Your task to perform on an android device: add a contact in the contacts app Image 0: 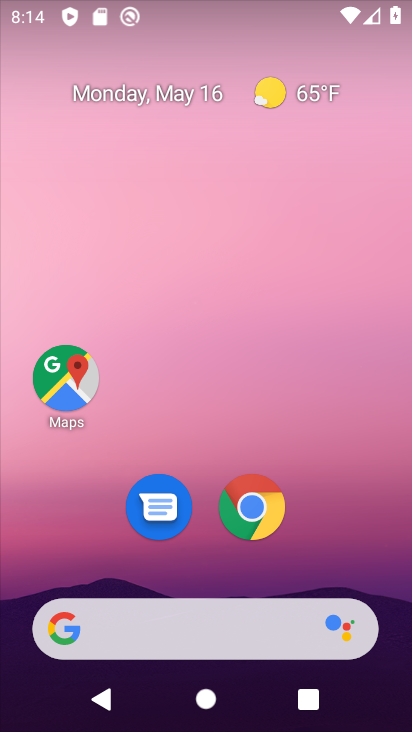
Step 0: drag from (198, 602) to (349, 123)
Your task to perform on an android device: add a contact in the contacts app Image 1: 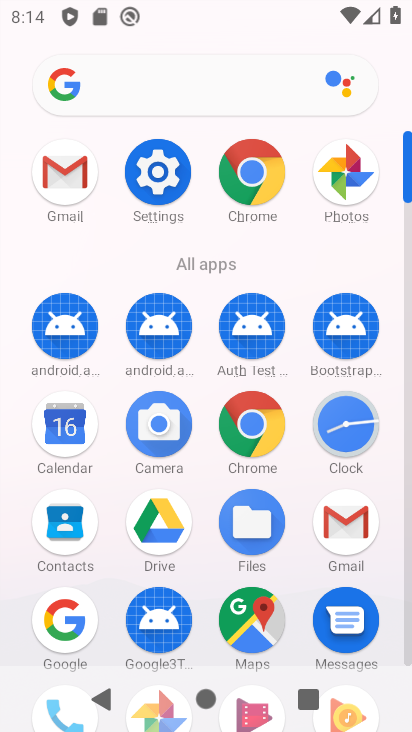
Step 1: drag from (106, 553) to (77, 113)
Your task to perform on an android device: add a contact in the contacts app Image 2: 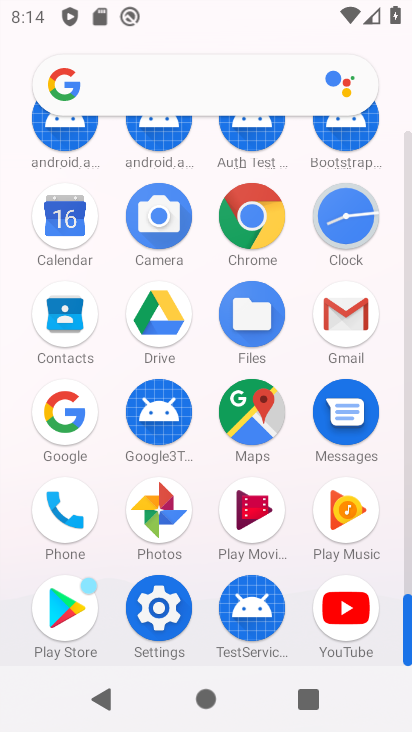
Step 2: click (62, 518)
Your task to perform on an android device: add a contact in the contacts app Image 3: 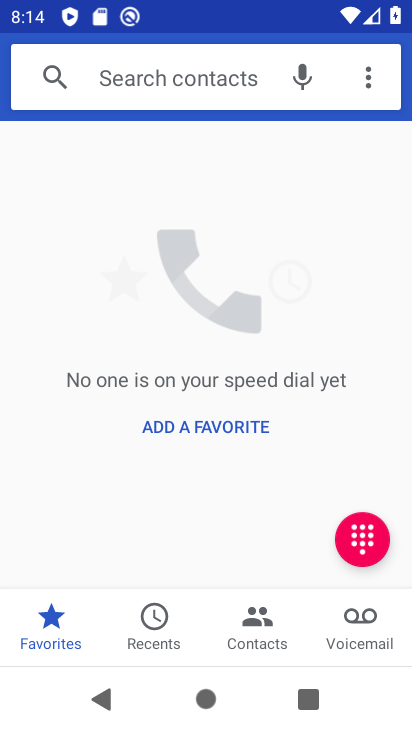
Step 3: click (228, 631)
Your task to perform on an android device: add a contact in the contacts app Image 4: 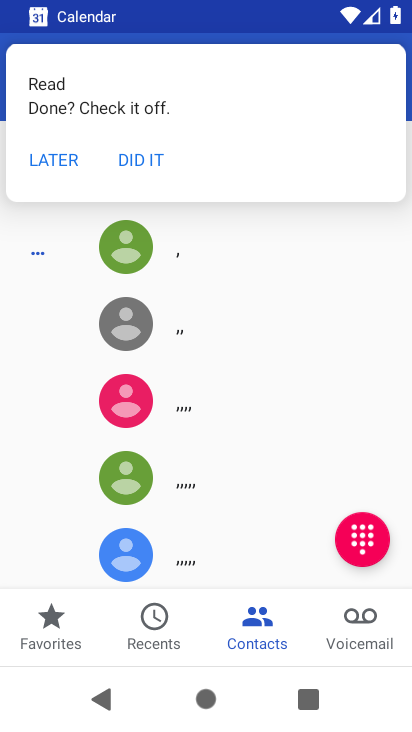
Step 4: click (138, 164)
Your task to perform on an android device: add a contact in the contacts app Image 5: 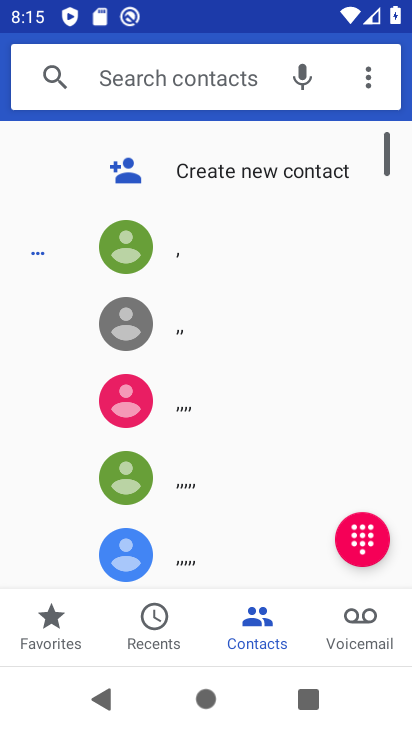
Step 5: click (145, 164)
Your task to perform on an android device: add a contact in the contacts app Image 6: 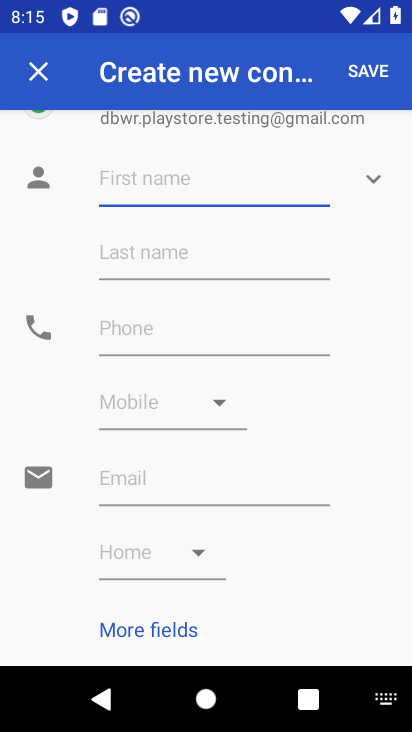
Step 6: type "hijn'"
Your task to perform on an android device: add a contact in the contacts app Image 7: 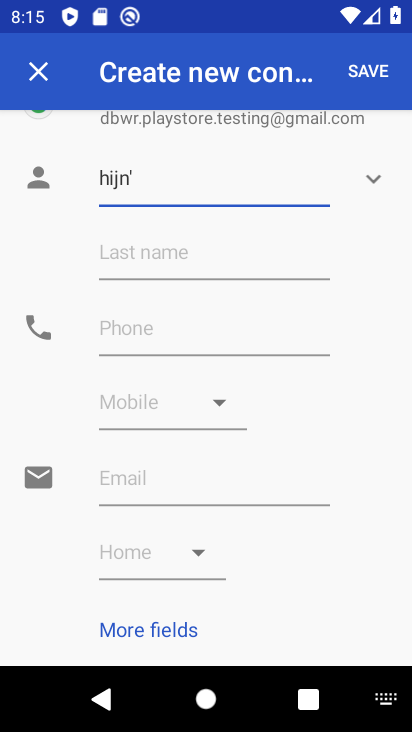
Step 7: click (134, 345)
Your task to perform on an android device: add a contact in the contacts app Image 8: 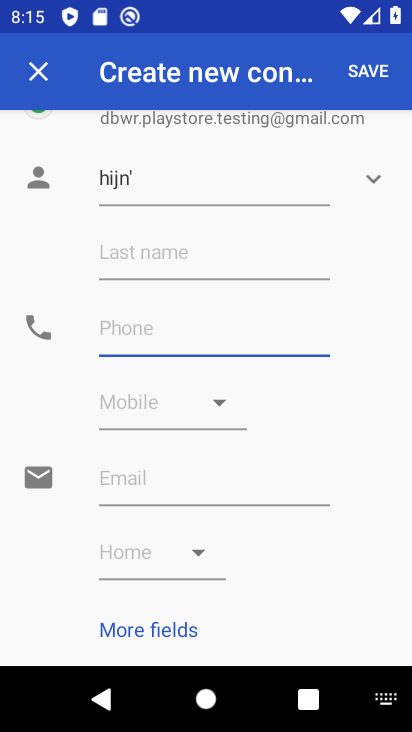
Step 8: type "9878"
Your task to perform on an android device: add a contact in the contacts app Image 9: 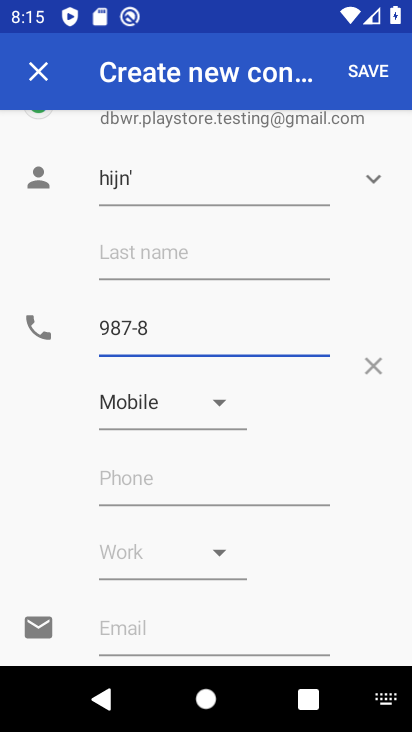
Step 9: click (351, 84)
Your task to perform on an android device: add a contact in the contacts app Image 10: 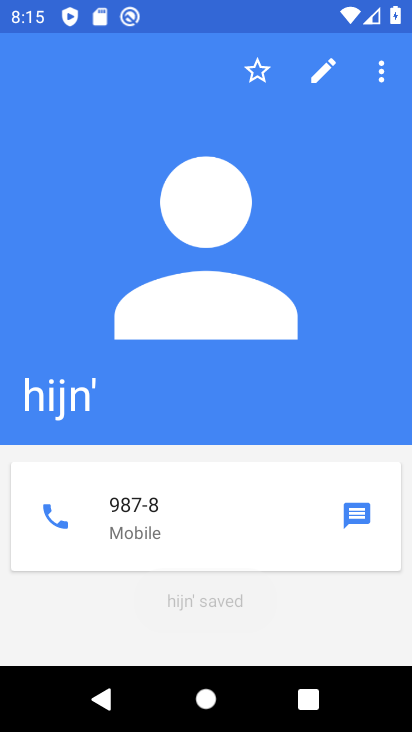
Step 10: task complete